Your task to perform on an android device: Go to Android settings Image 0: 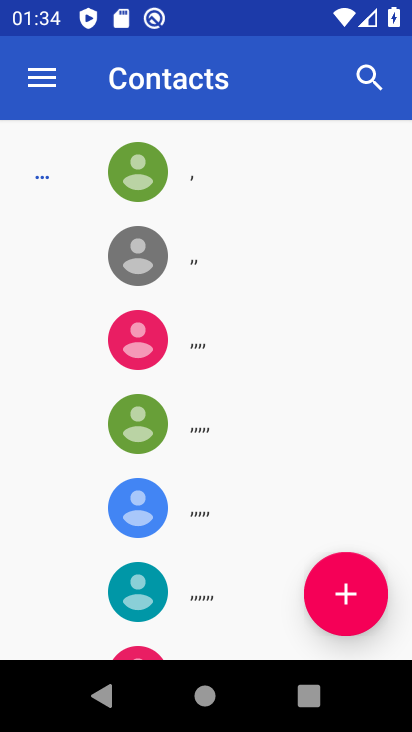
Step 0: press home button
Your task to perform on an android device: Go to Android settings Image 1: 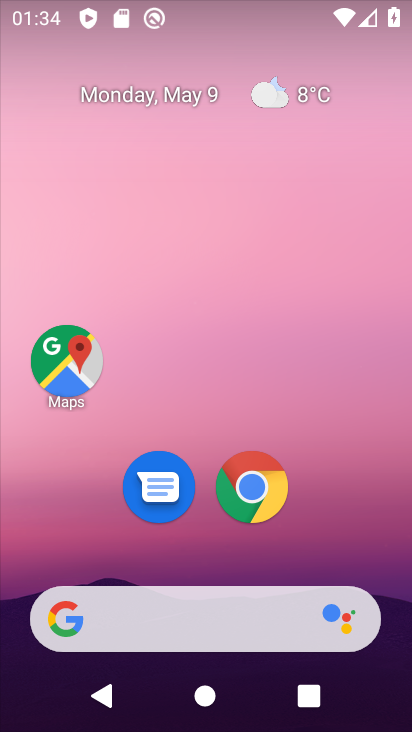
Step 1: drag from (386, 494) to (377, 0)
Your task to perform on an android device: Go to Android settings Image 2: 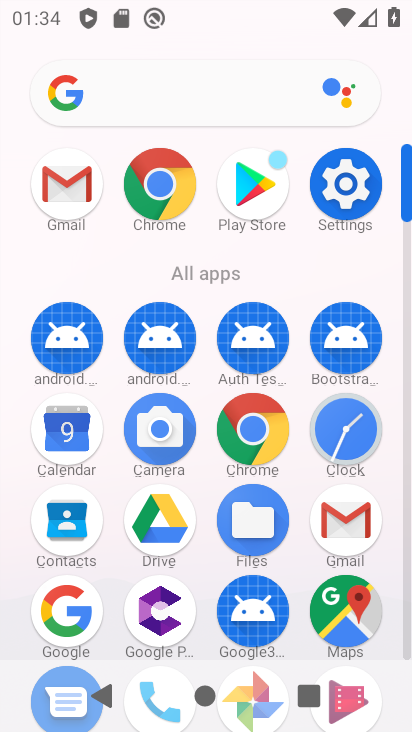
Step 2: click (338, 167)
Your task to perform on an android device: Go to Android settings Image 3: 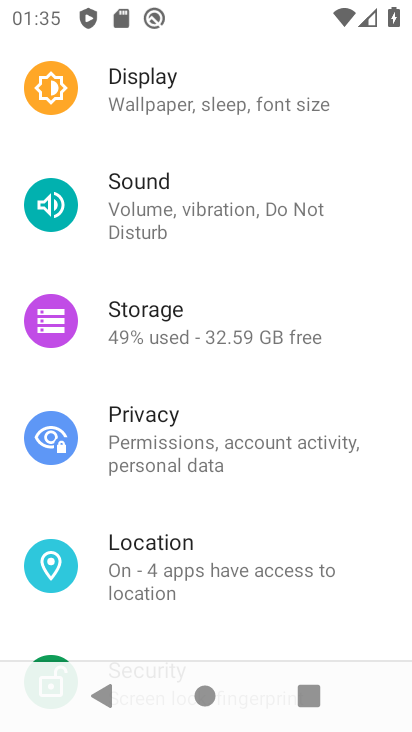
Step 3: task complete